Your task to perform on an android device: Show me productivity apps on the Play Store Image 0: 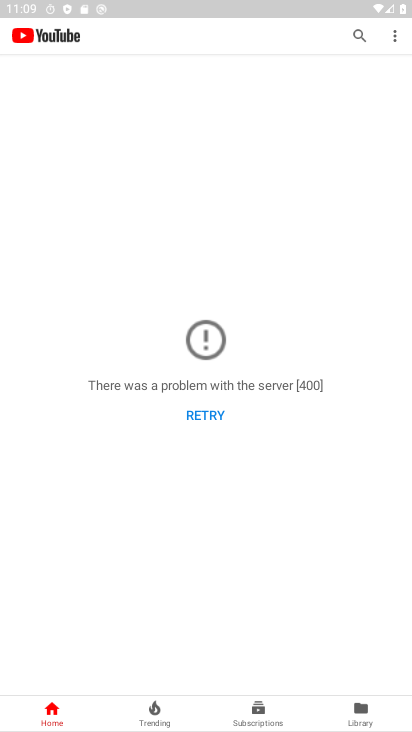
Step 0: press home button
Your task to perform on an android device: Show me productivity apps on the Play Store Image 1: 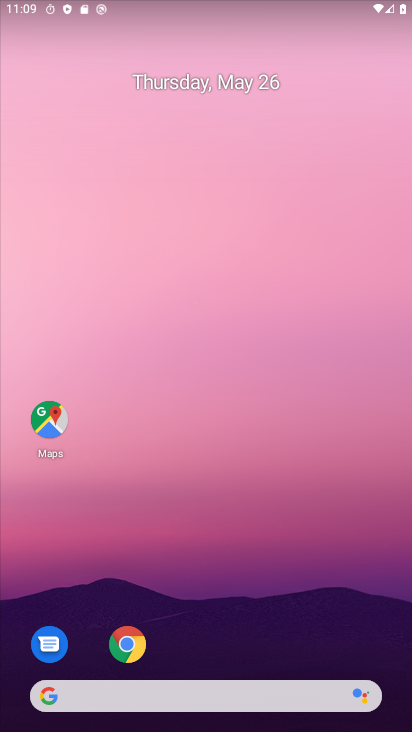
Step 1: drag from (137, 731) to (137, 9)
Your task to perform on an android device: Show me productivity apps on the Play Store Image 2: 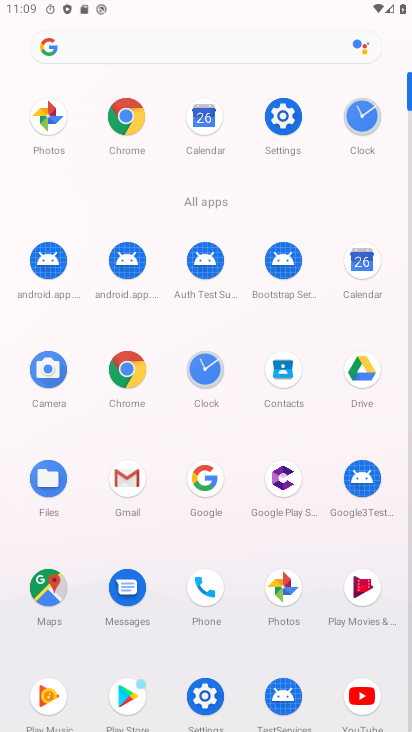
Step 2: click (133, 698)
Your task to perform on an android device: Show me productivity apps on the Play Store Image 3: 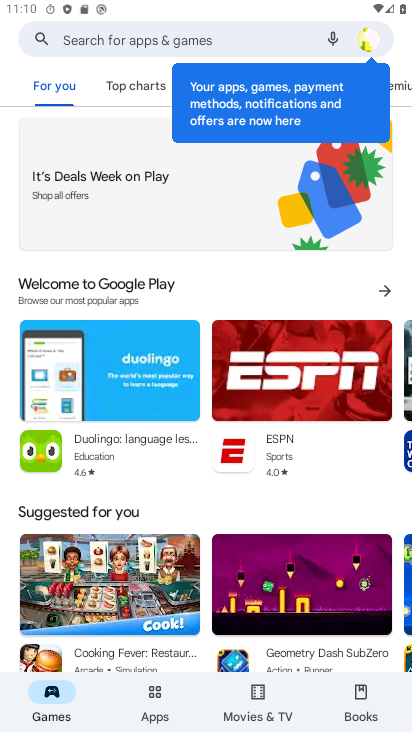
Step 3: click (150, 709)
Your task to perform on an android device: Show me productivity apps on the Play Store Image 4: 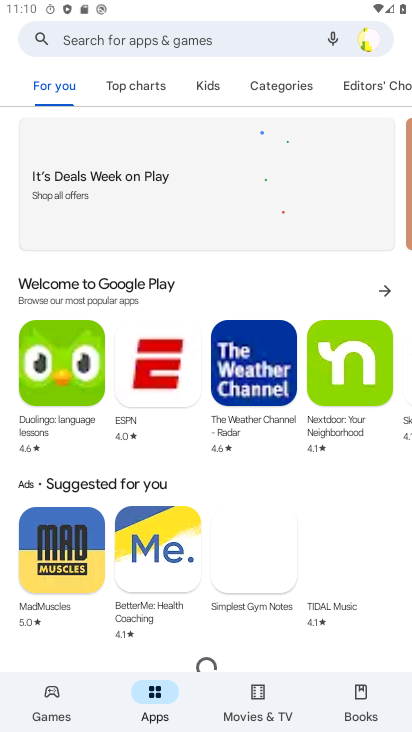
Step 4: click (280, 84)
Your task to perform on an android device: Show me productivity apps on the Play Store Image 5: 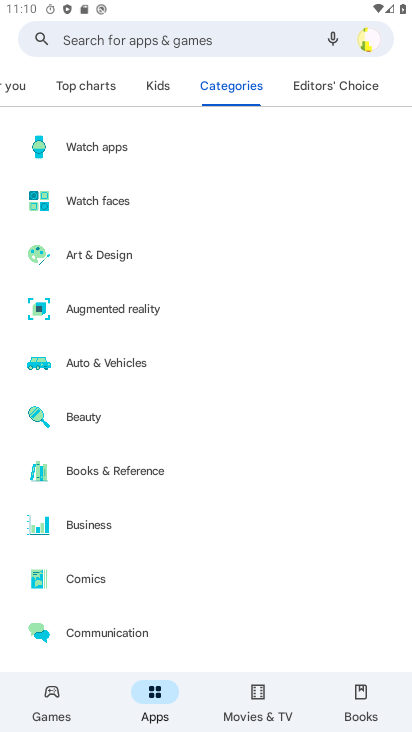
Step 5: drag from (319, 641) to (295, 151)
Your task to perform on an android device: Show me productivity apps on the Play Store Image 6: 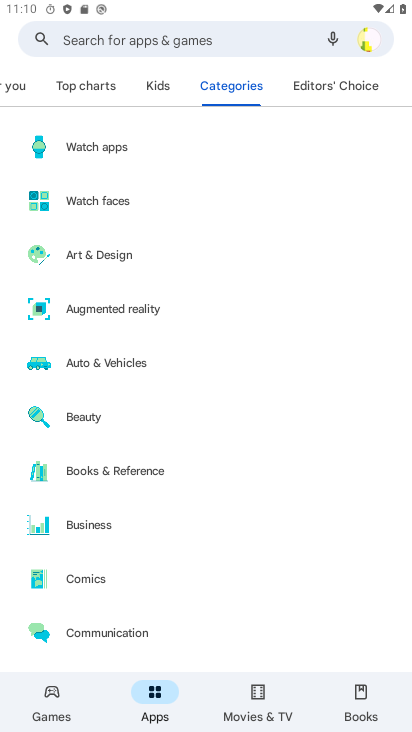
Step 6: drag from (319, 653) to (332, 122)
Your task to perform on an android device: Show me productivity apps on the Play Store Image 7: 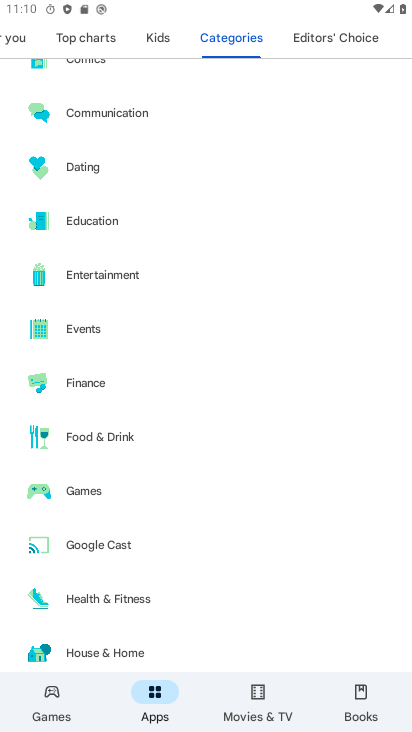
Step 7: drag from (311, 630) to (293, 53)
Your task to perform on an android device: Show me productivity apps on the Play Store Image 8: 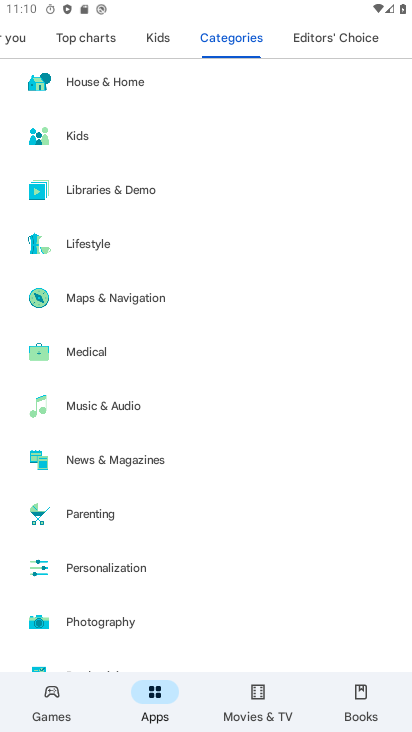
Step 8: drag from (276, 627) to (270, 174)
Your task to perform on an android device: Show me productivity apps on the Play Store Image 9: 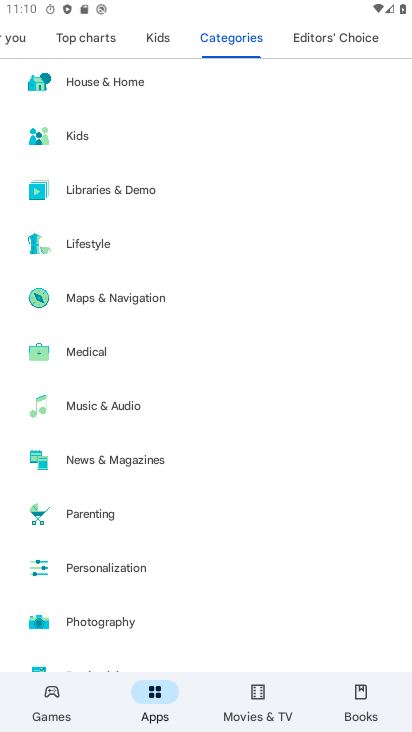
Step 9: drag from (323, 658) to (347, 192)
Your task to perform on an android device: Show me productivity apps on the Play Store Image 10: 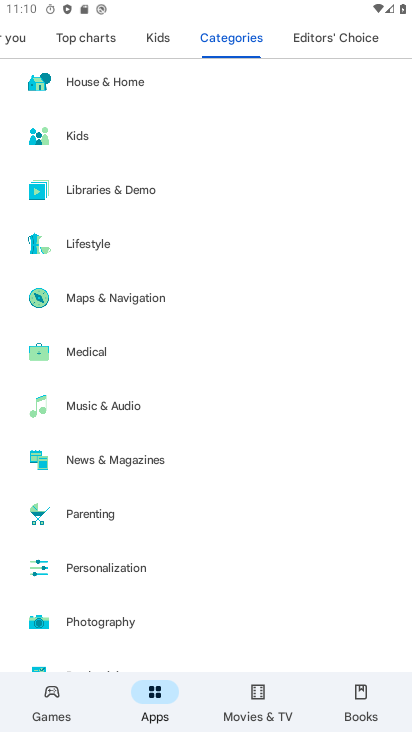
Step 10: drag from (329, 660) to (333, 90)
Your task to perform on an android device: Show me productivity apps on the Play Store Image 11: 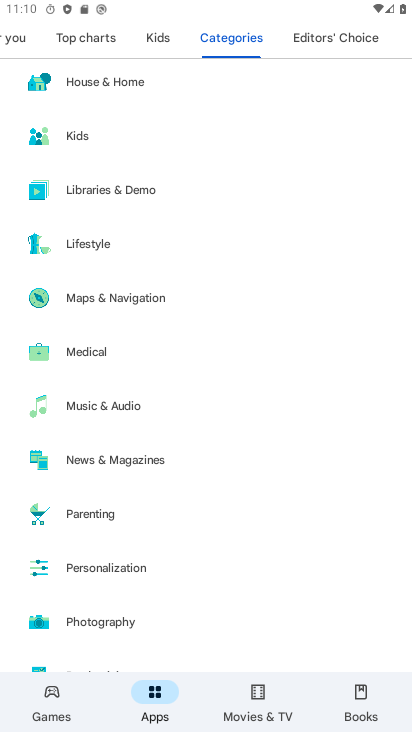
Step 11: drag from (308, 650) to (299, 113)
Your task to perform on an android device: Show me productivity apps on the Play Store Image 12: 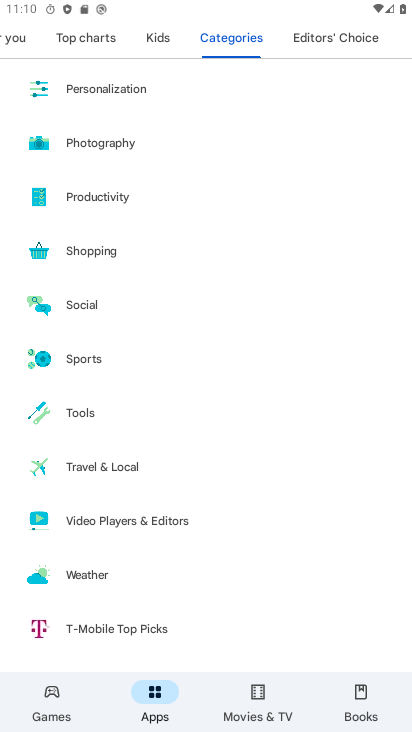
Step 12: click (106, 200)
Your task to perform on an android device: Show me productivity apps on the Play Store Image 13: 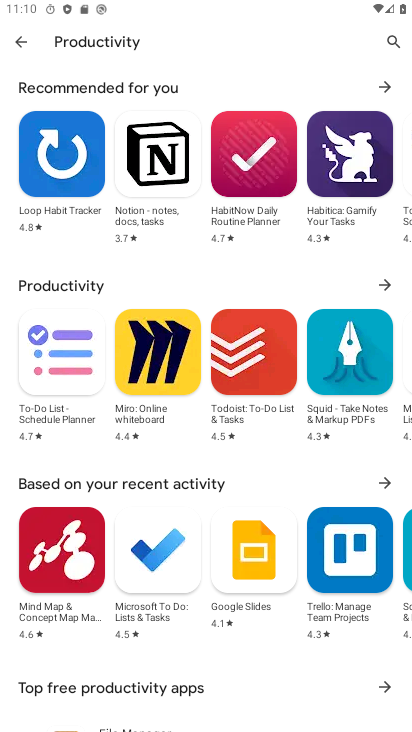
Step 13: task complete